Your task to perform on an android device: Go to accessibility settings Image 0: 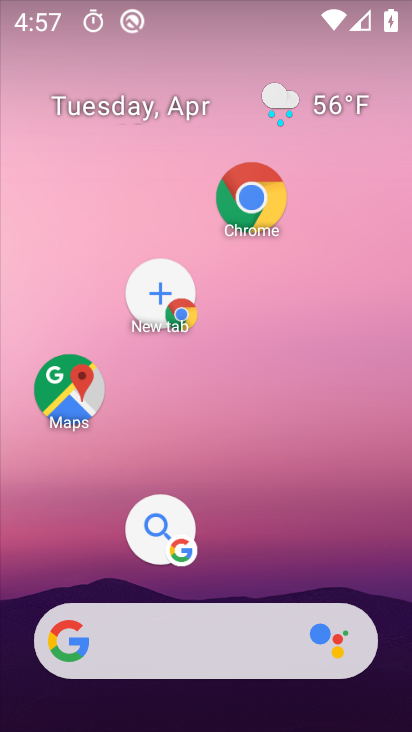
Step 0: drag from (224, 526) to (302, 114)
Your task to perform on an android device: Go to accessibility settings Image 1: 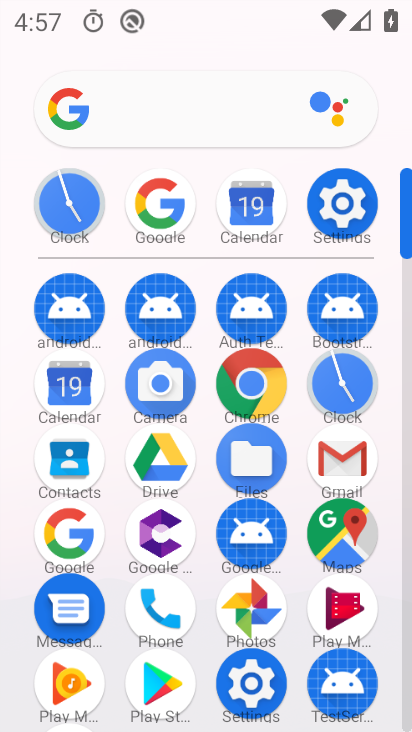
Step 1: click (343, 199)
Your task to perform on an android device: Go to accessibility settings Image 2: 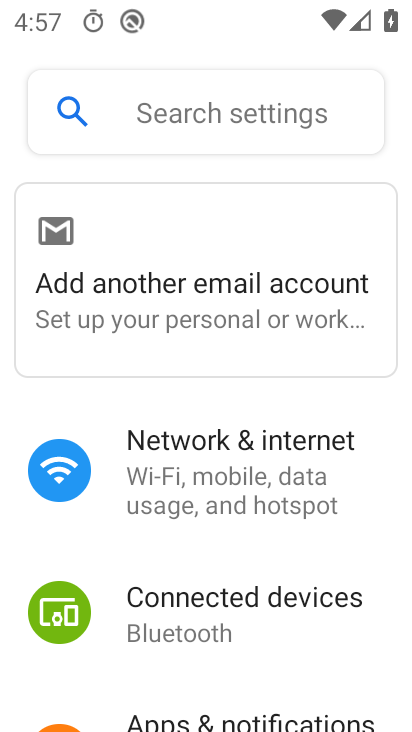
Step 2: drag from (268, 675) to (350, 284)
Your task to perform on an android device: Go to accessibility settings Image 3: 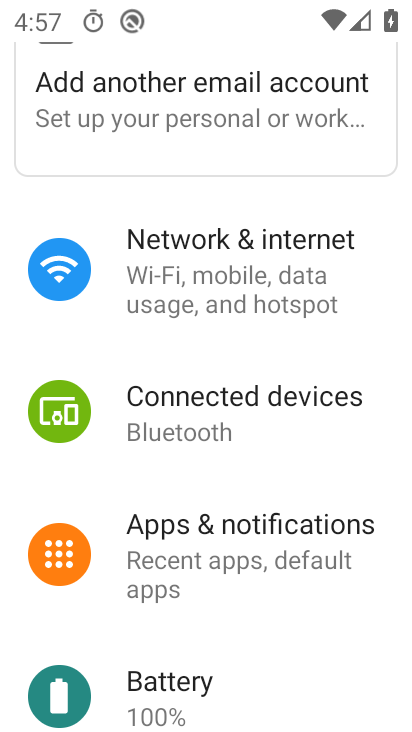
Step 3: drag from (208, 694) to (302, 317)
Your task to perform on an android device: Go to accessibility settings Image 4: 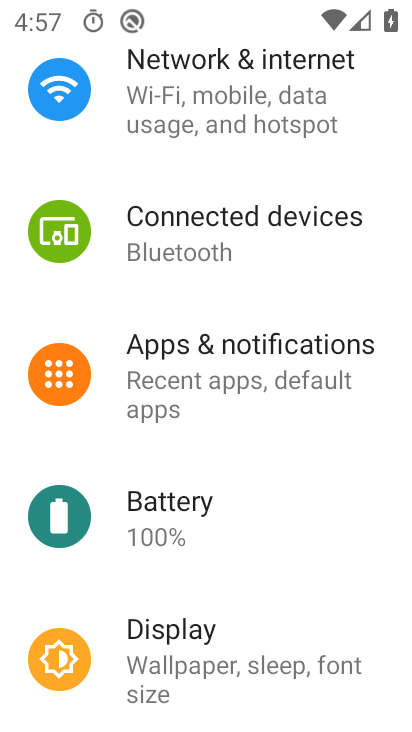
Step 4: drag from (263, 699) to (391, 360)
Your task to perform on an android device: Go to accessibility settings Image 5: 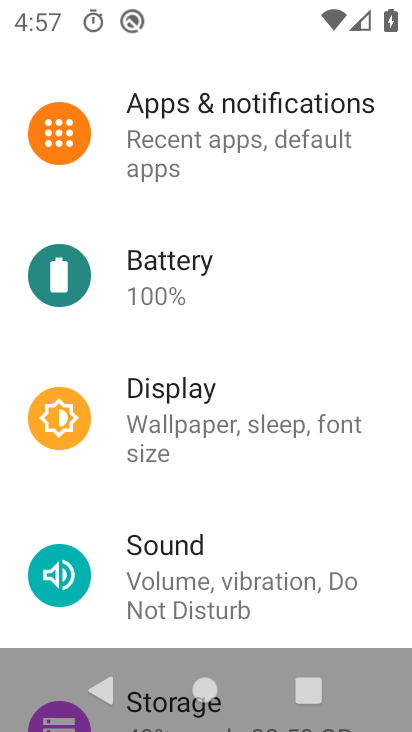
Step 5: drag from (192, 621) to (284, 357)
Your task to perform on an android device: Go to accessibility settings Image 6: 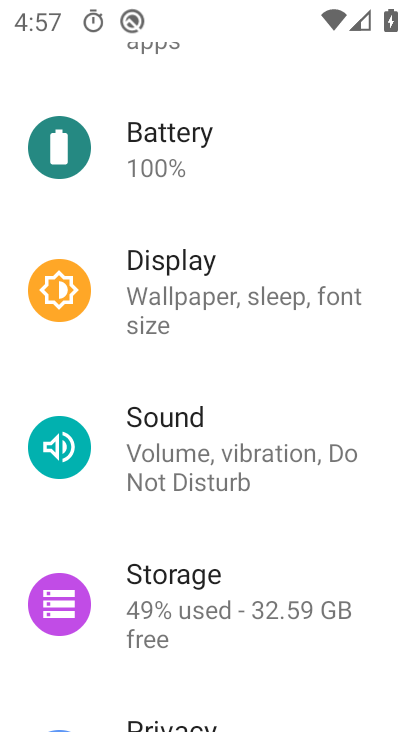
Step 6: drag from (239, 606) to (298, 277)
Your task to perform on an android device: Go to accessibility settings Image 7: 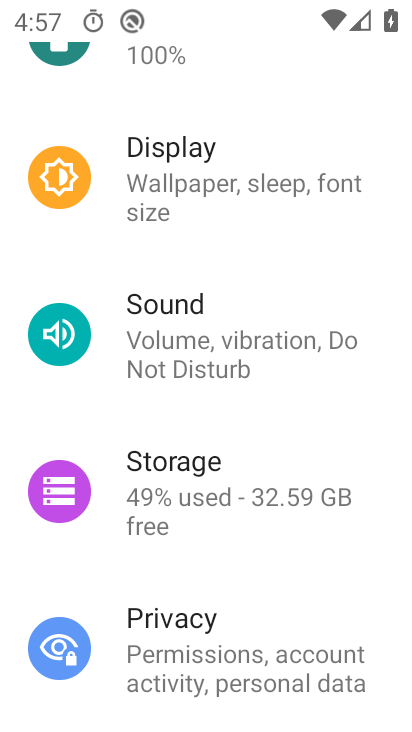
Step 7: drag from (221, 664) to (254, 458)
Your task to perform on an android device: Go to accessibility settings Image 8: 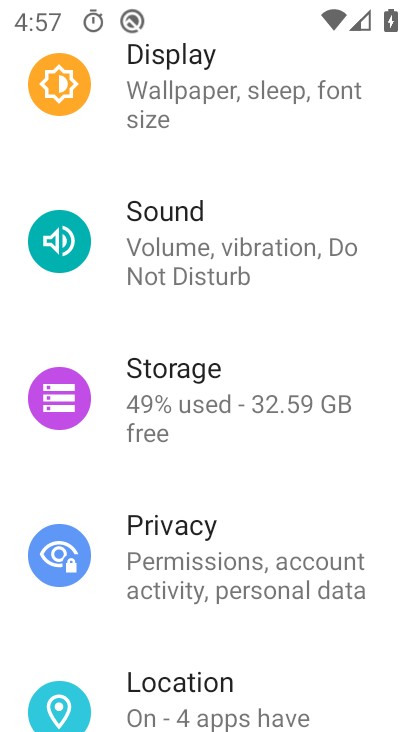
Step 8: drag from (206, 685) to (287, 343)
Your task to perform on an android device: Go to accessibility settings Image 9: 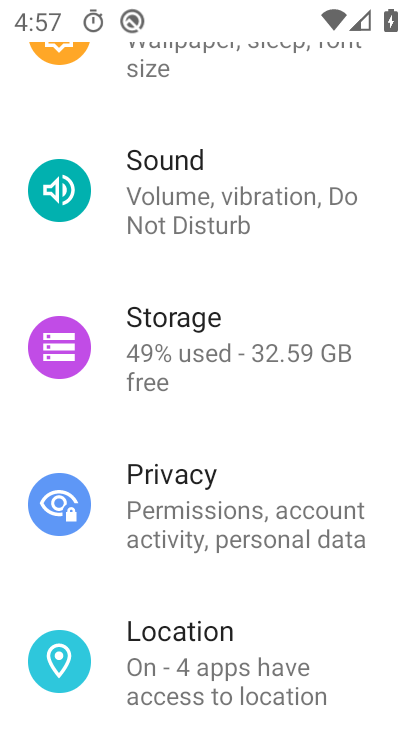
Step 9: drag from (191, 675) to (240, 412)
Your task to perform on an android device: Go to accessibility settings Image 10: 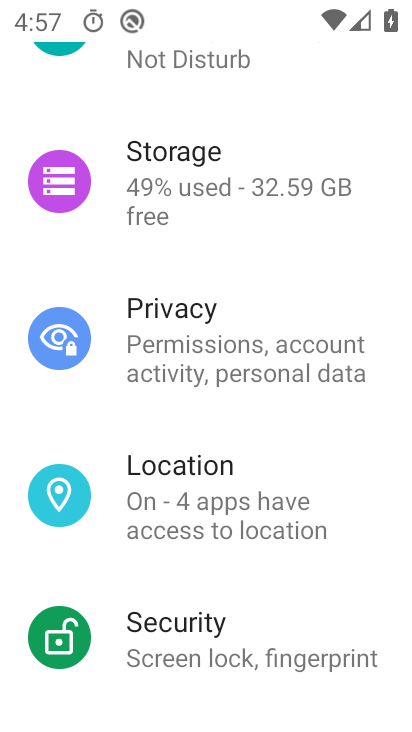
Step 10: drag from (175, 702) to (260, 404)
Your task to perform on an android device: Go to accessibility settings Image 11: 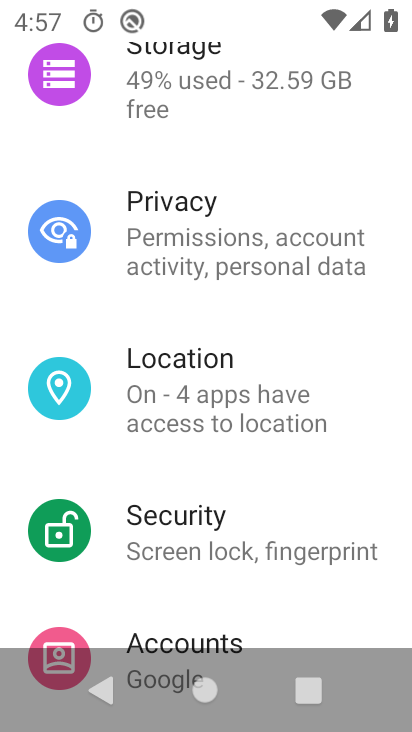
Step 11: drag from (175, 609) to (298, 316)
Your task to perform on an android device: Go to accessibility settings Image 12: 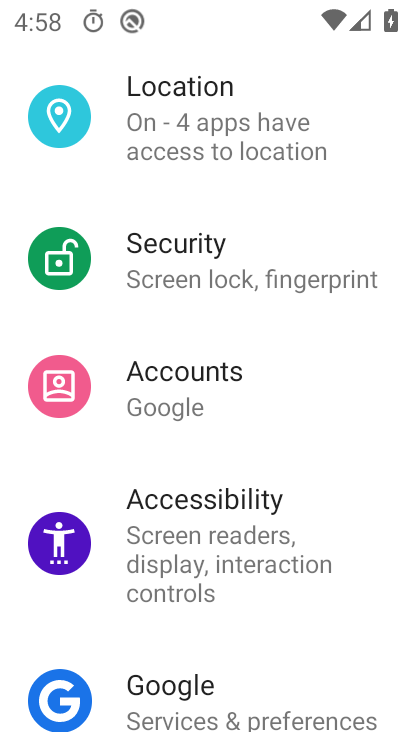
Step 12: click (177, 535)
Your task to perform on an android device: Go to accessibility settings Image 13: 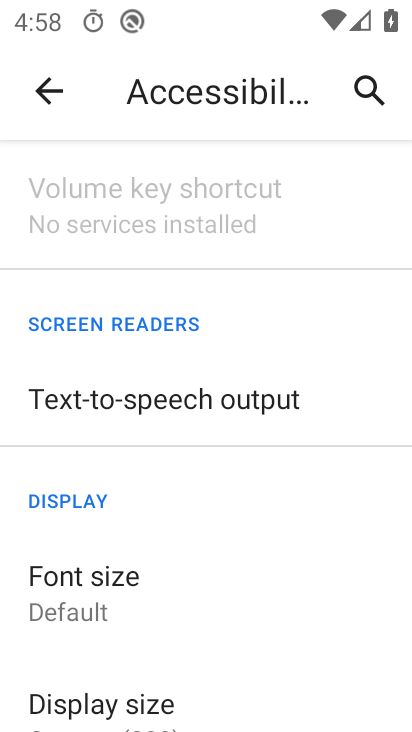
Step 13: task complete